Your task to perform on an android device: Go to Amazon Image 0: 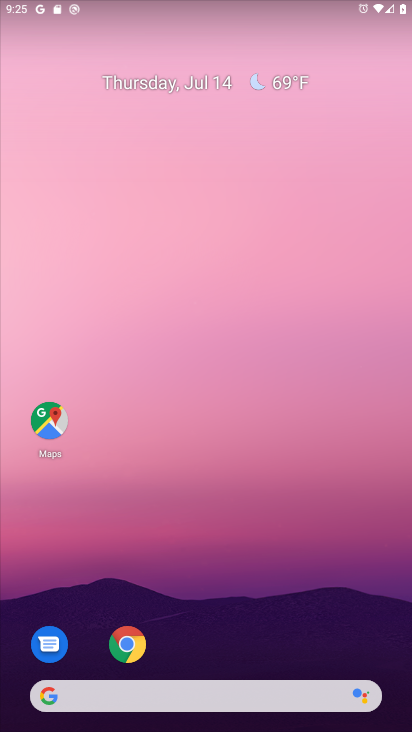
Step 0: click (129, 653)
Your task to perform on an android device: Go to Amazon Image 1: 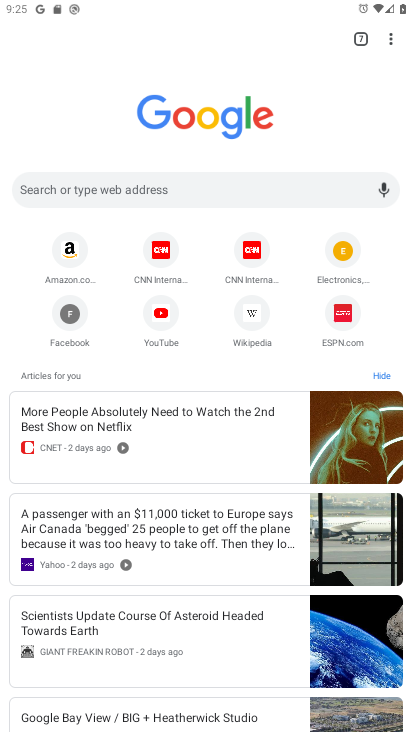
Step 1: click (57, 241)
Your task to perform on an android device: Go to Amazon Image 2: 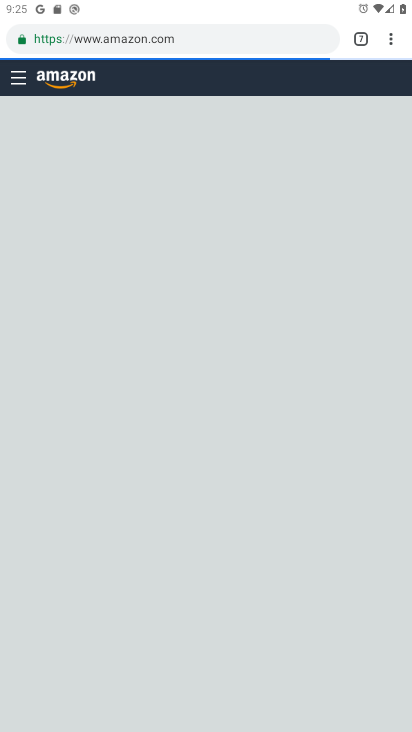
Step 2: task complete